Your task to perform on an android device: check storage Image 0: 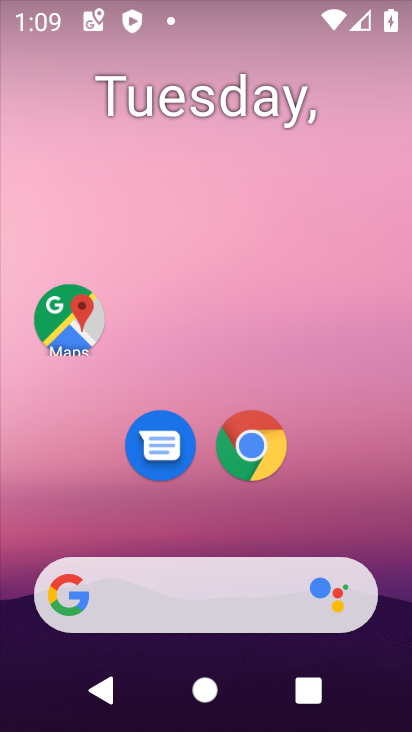
Step 0: drag from (353, 525) to (408, 122)
Your task to perform on an android device: check storage Image 1: 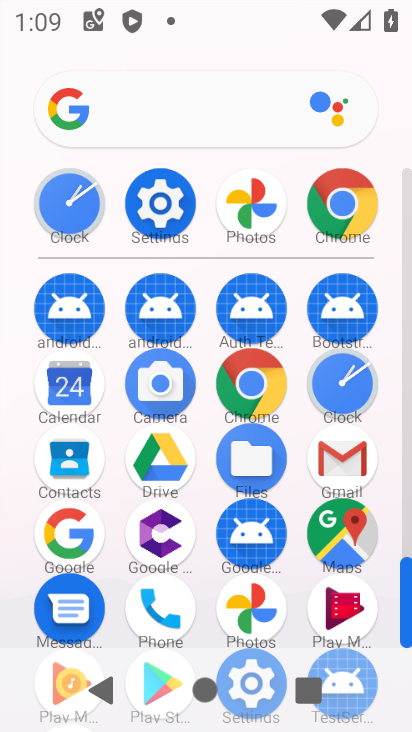
Step 1: click (162, 196)
Your task to perform on an android device: check storage Image 2: 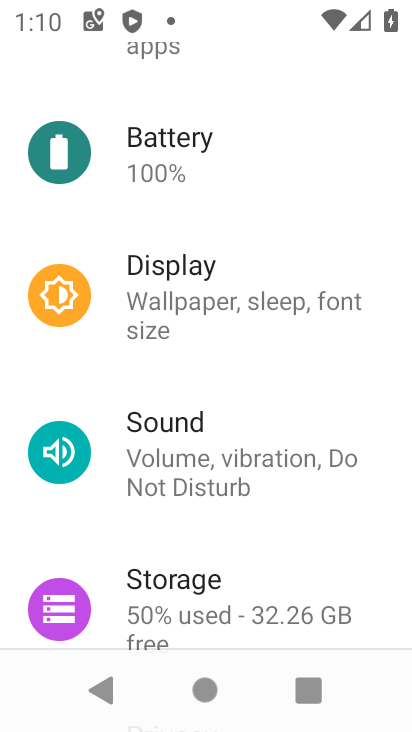
Step 2: drag from (224, 571) to (266, 214)
Your task to perform on an android device: check storage Image 3: 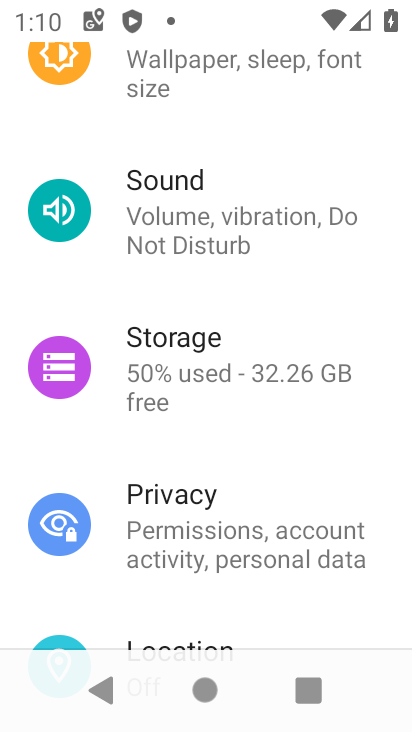
Step 3: drag from (245, 508) to (273, 291)
Your task to perform on an android device: check storage Image 4: 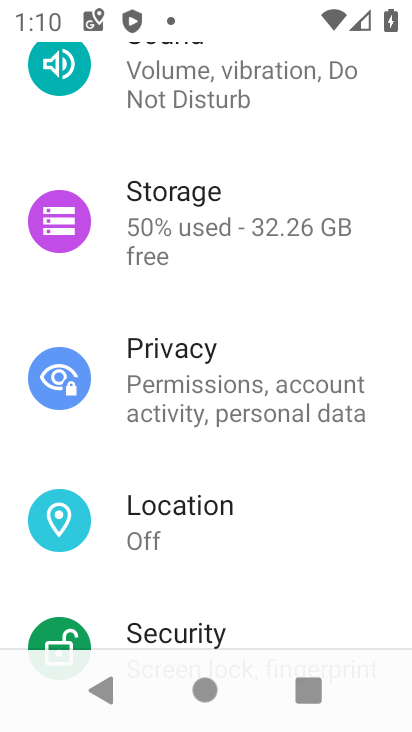
Step 4: click (228, 245)
Your task to perform on an android device: check storage Image 5: 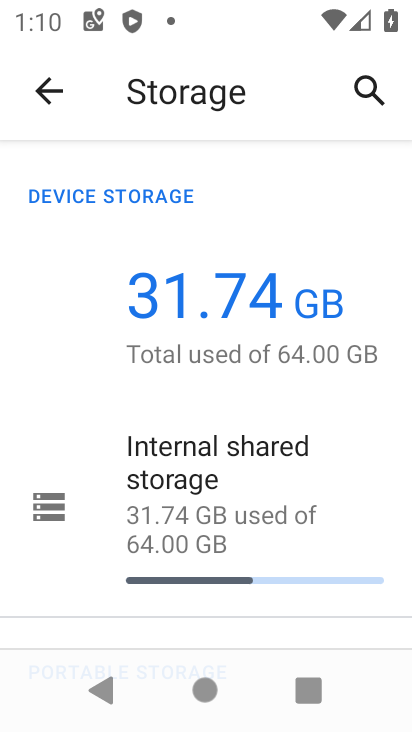
Step 5: click (183, 559)
Your task to perform on an android device: check storage Image 6: 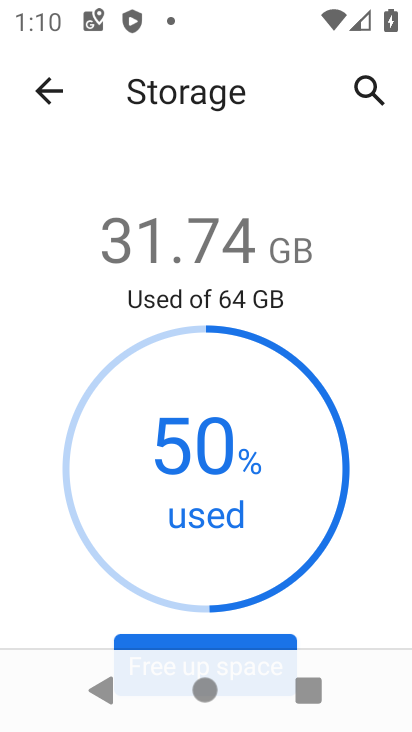
Step 6: task complete